Your task to perform on an android device: turn off improve location accuracy Image 0: 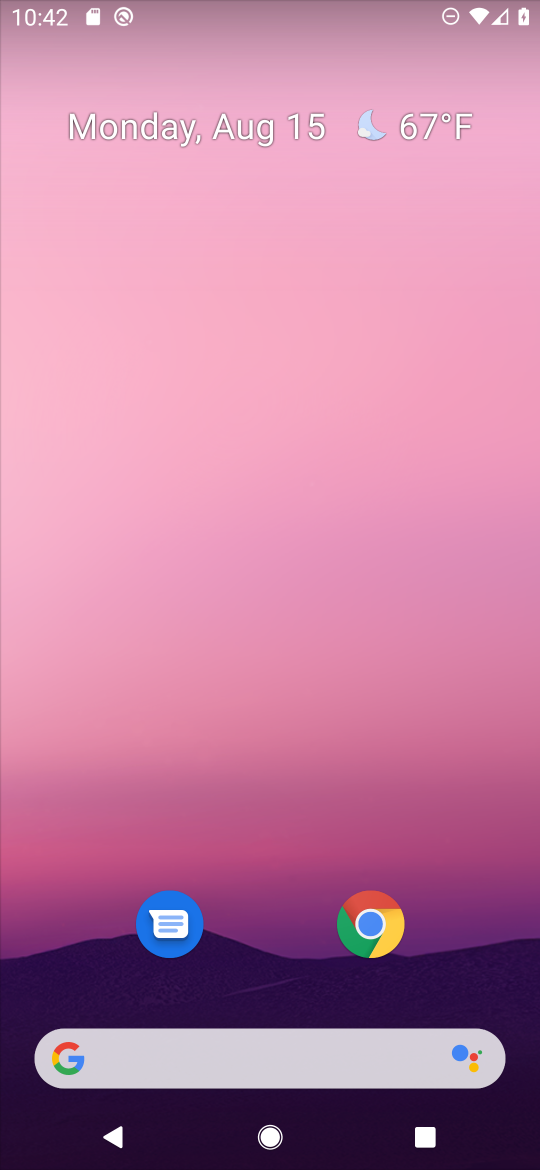
Step 0: drag from (493, 989) to (366, 95)
Your task to perform on an android device: turn off improve location accuracy Image 1: 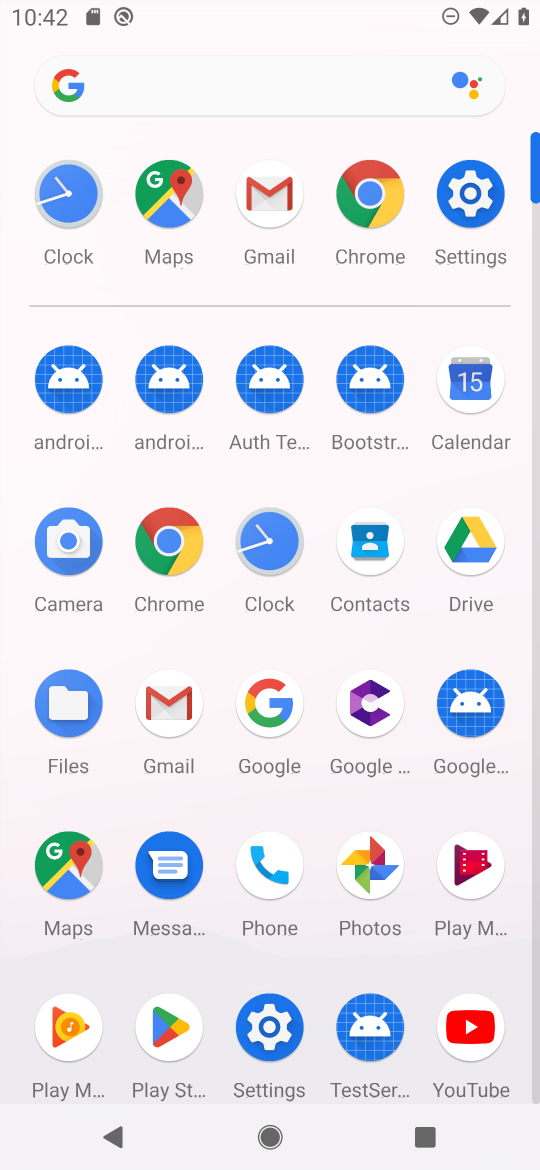
Step 1: click (274, 1027)
Your task to perform on an android device: turn off improve location accuracy Image 2: 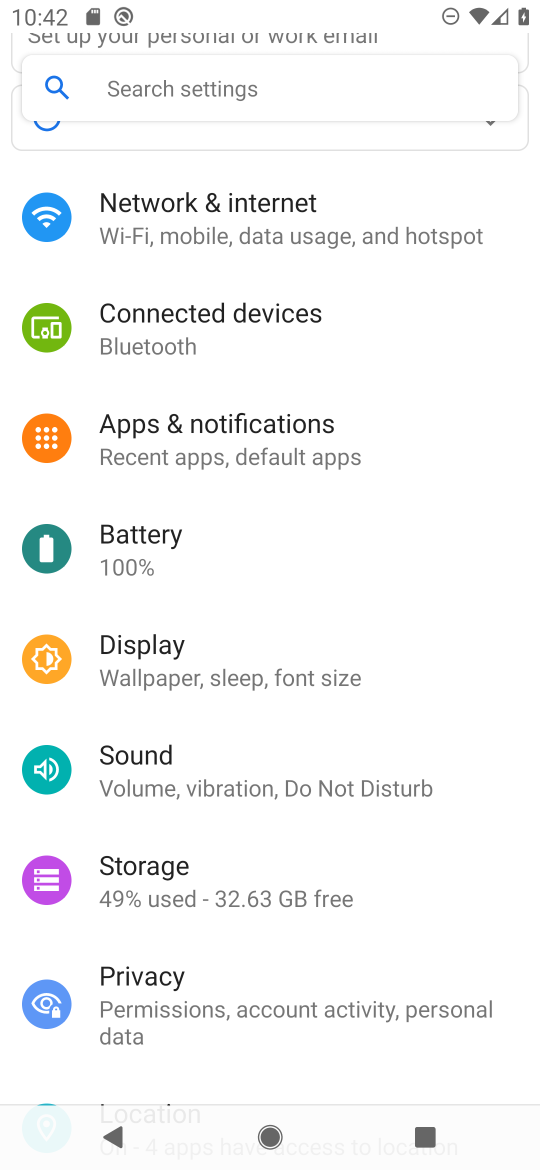
Step 2: drag from (214, 966) to (352, 353)
Your task to perform on an android device: turn off improve location accuracy Image 3: 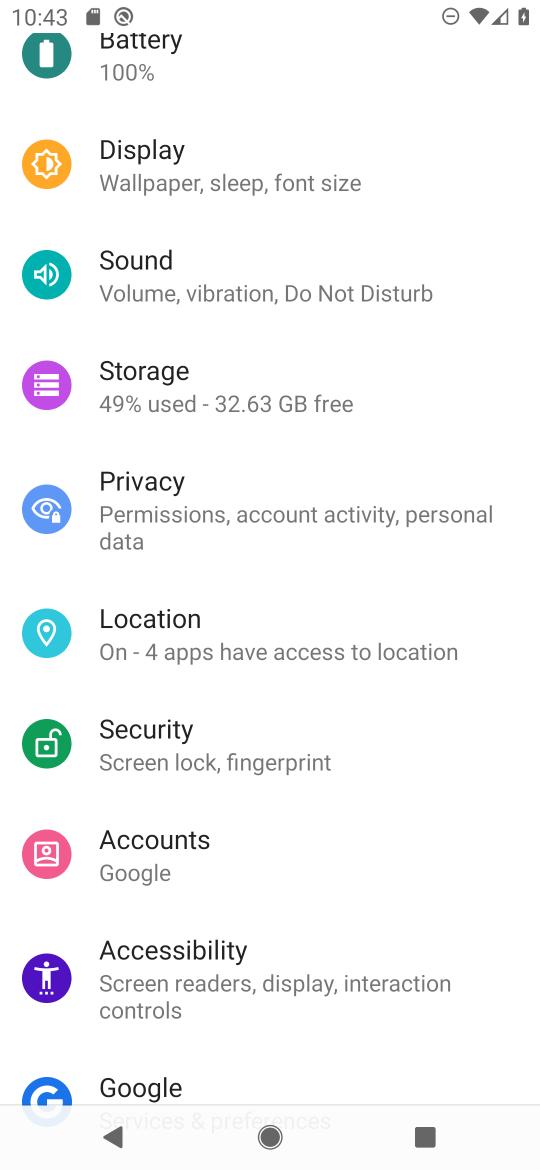
Step 3: click (137, 625)
Your task to perform on an android device: turn off improve location accuracy Image 4: 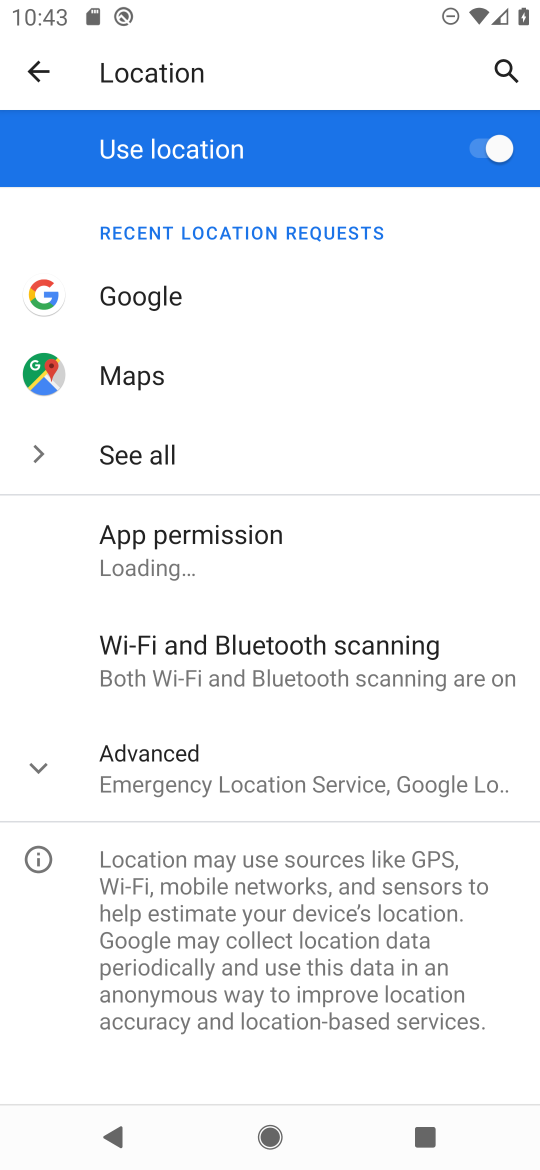
Step 4: click (40, 767)
Your task to perform on an android device: turn off improve location accuracy Image 5: 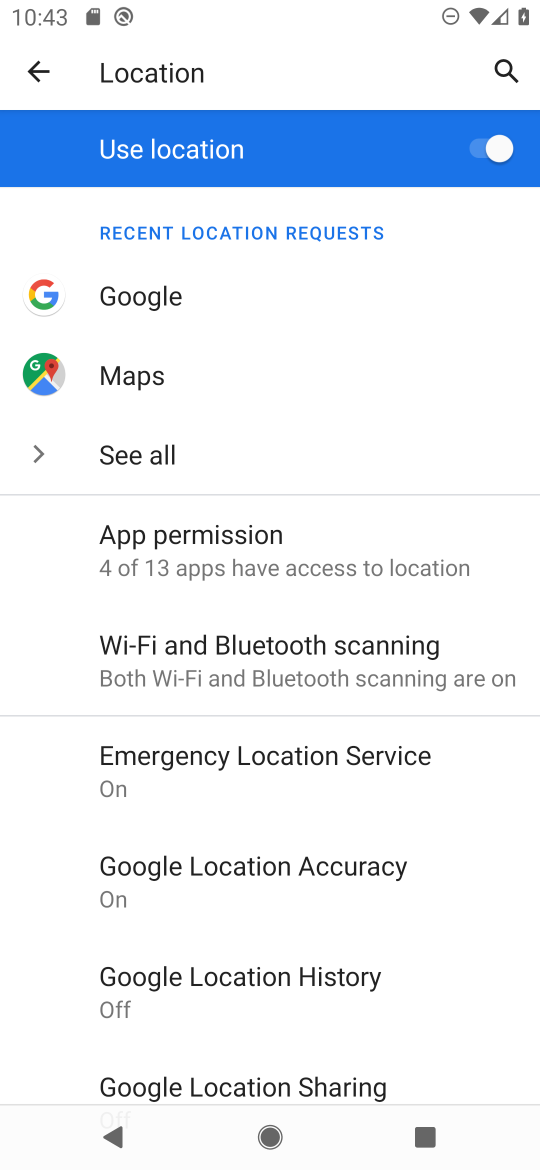
Step 5: drag from (433, 842) to (427, 457)
Your task to perform on an android device: turn off improve location accuracy Image 6: 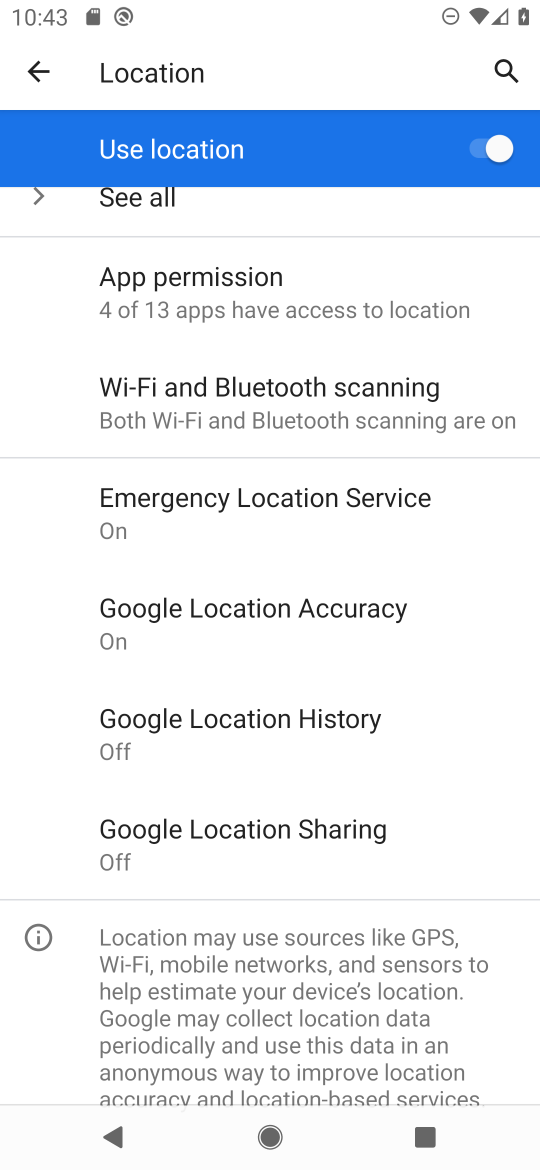
Step 6: click (255, 606)
Your task to perform on an android device: turn off improve location accuracy Image 7: 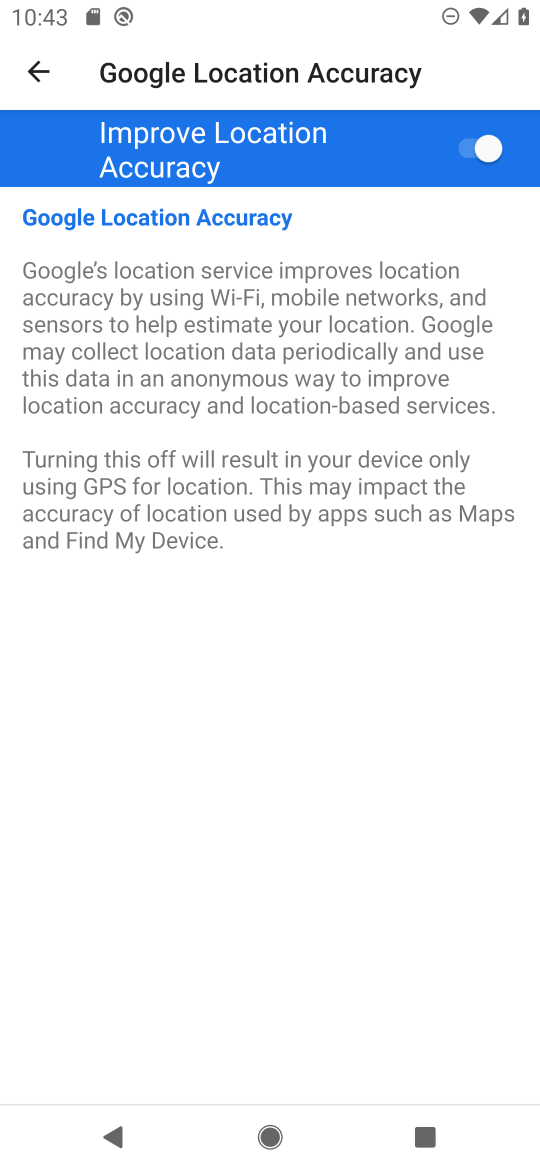
Step 7: click (461, 149)
Your task to perform on an android device: turn off improve location accuracy Image 8: 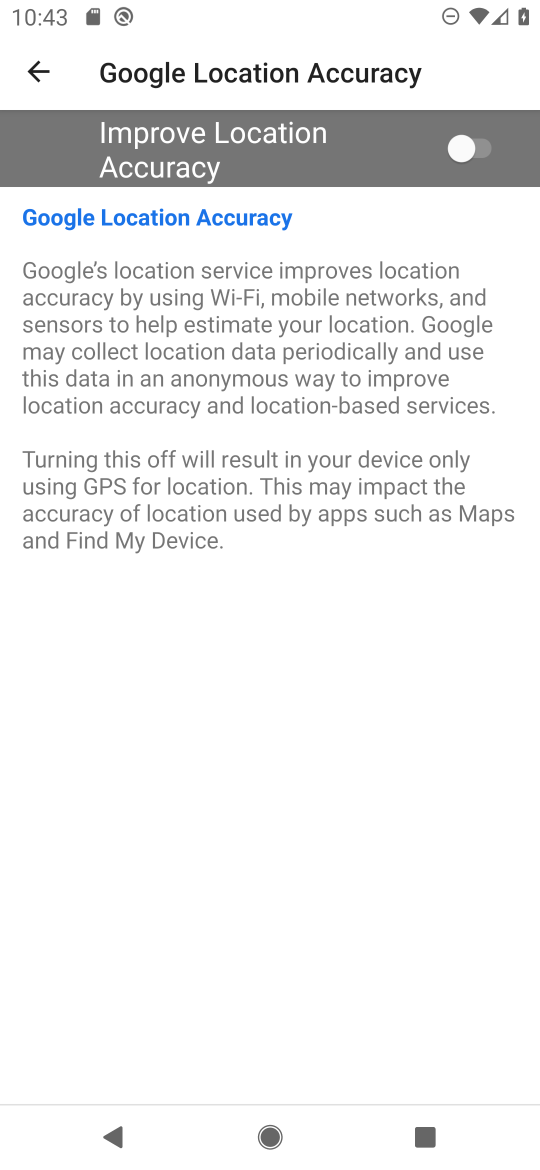
Step 8: task complete